Your task to perform on an android device: Open the calendar and show me this week's events Image 0: 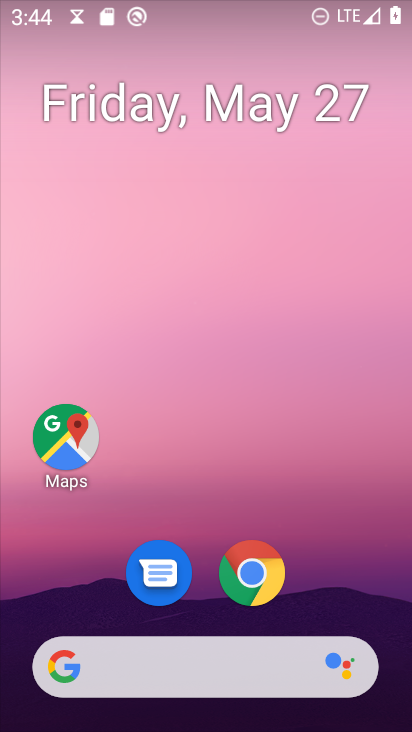
Step 0: drag from (321, 568) to (337, 93)
Your task to perform on an android device: Open the calendar and show me this week's events Image 1: 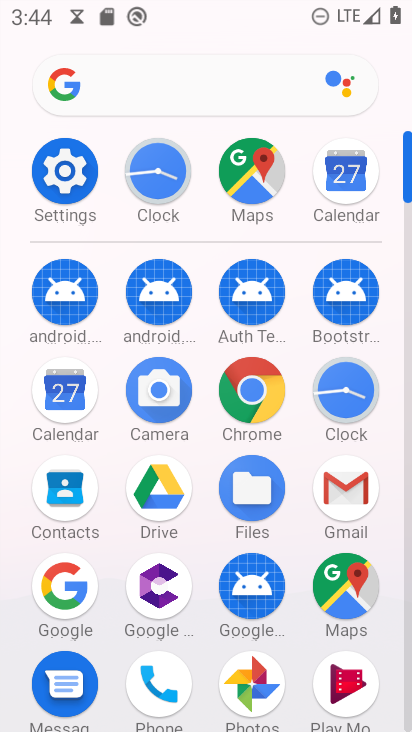
Step 1: click (50, 392)
Your task to perform on an android device: Open the calendar and show me this week's events Image 2: 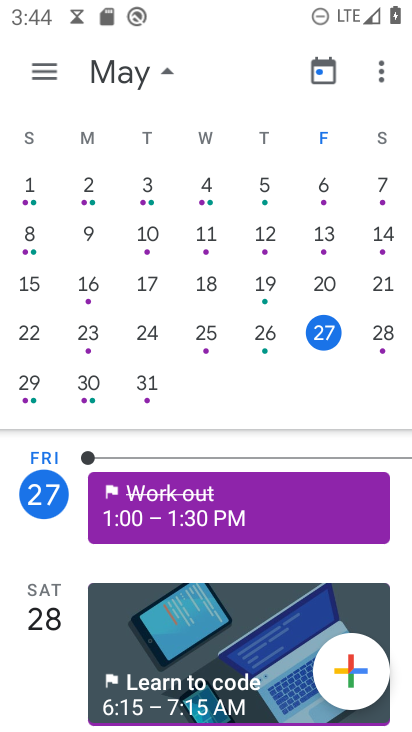
Step 2: click (321, 336)
Your task to perform on an android device: Open the calendar and show me this week's events Image 3: 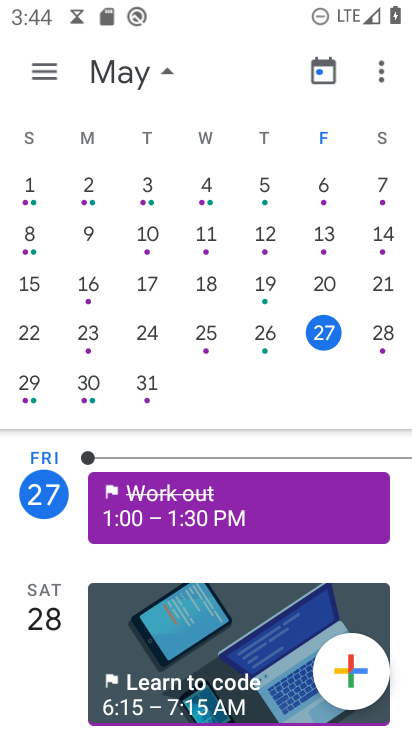
Step 3: task complete